Your task to perform on an android device: What's the weather going to be tomorrow? Image 0: 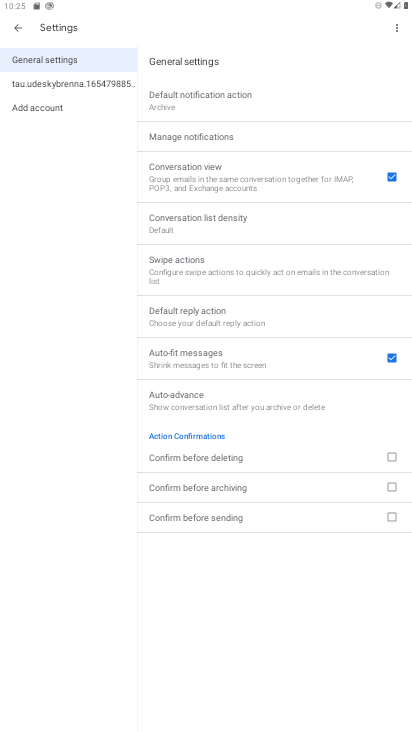
Step 0: press home button
Your task to perform on an android device: What's the weather going to be tomorrow? Image 1: 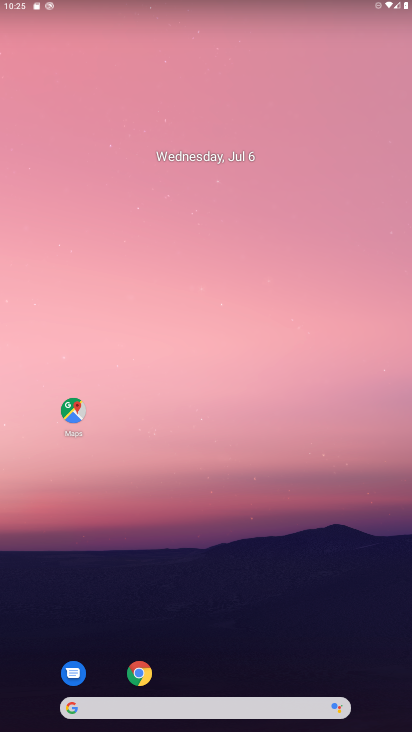
Step 1: click (151, 709)
Your task to perform on an android device: What's the weather going to be tomorrow? Image 2: 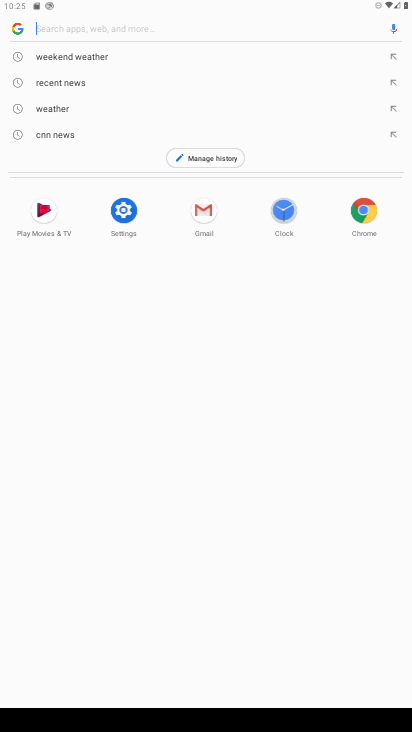
Step 2: click (51, 115)
Your task to perform on an android device: What's the weather going to be tomorrow? Image 3: 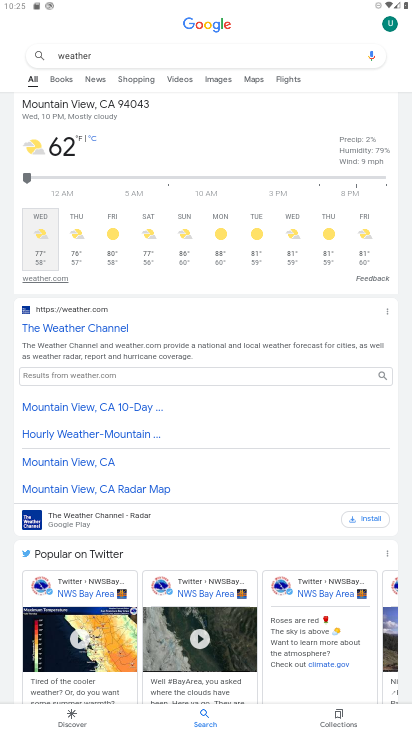
Step 3: click (77, 246)
Your task to perform on an android device: What's the weather going to be tomorrow? Image 4: 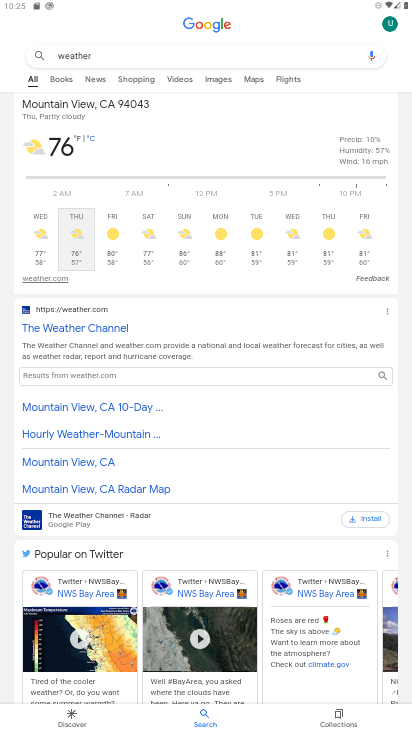
Step 4: task complete